Your task to perform on an android device: check storage Image 0: 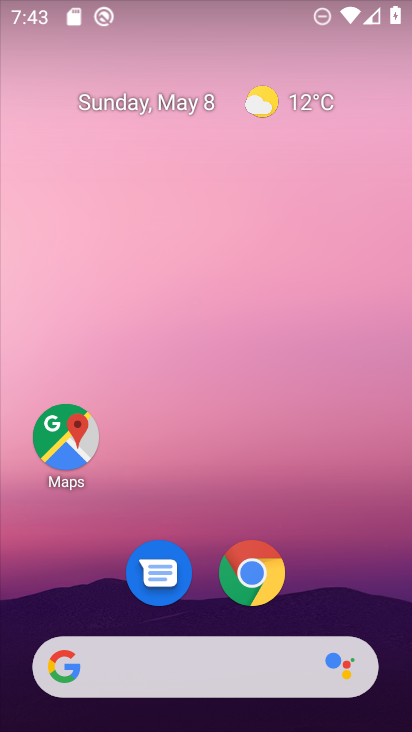
Step 0: drag from (326, 540) to (327, 7)
Your task to perform on an android device: check storage Image 1: 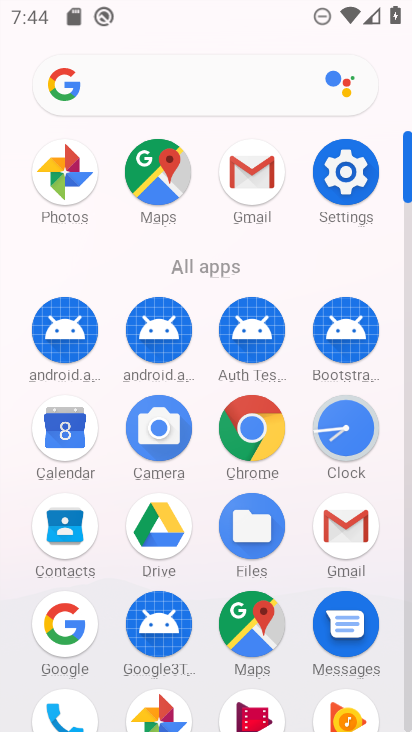
Step 1: click (342, 174)
Your task to perform on an android device: check storage Image 2: 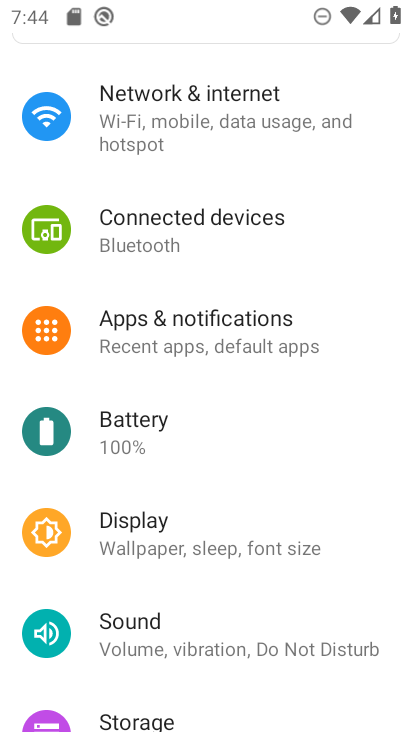
Step 2: click (112, 720)
Your task to perform on an android device: check storage Image 3: 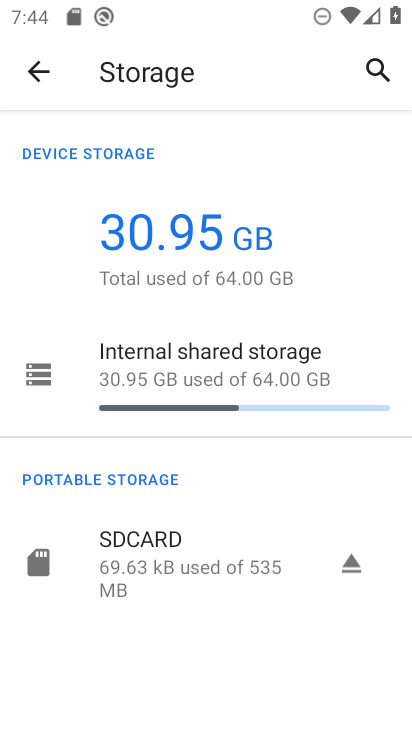
Step 3: click (166, 333)
Your task to perform on an android device: check storage Image 4: 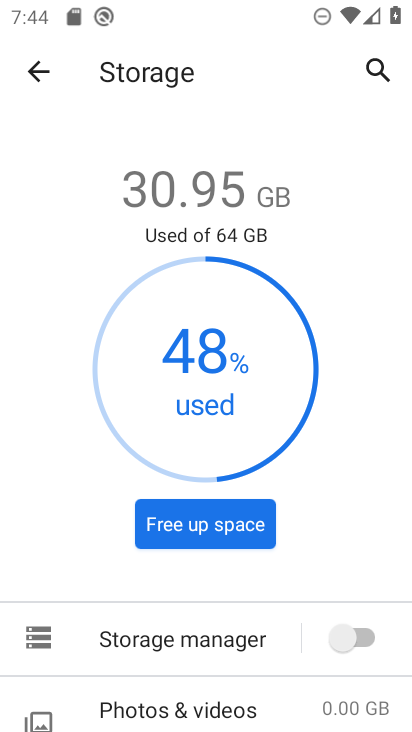
Step 4: task complete